Your task to perform on an android device: Open the map Image 0: 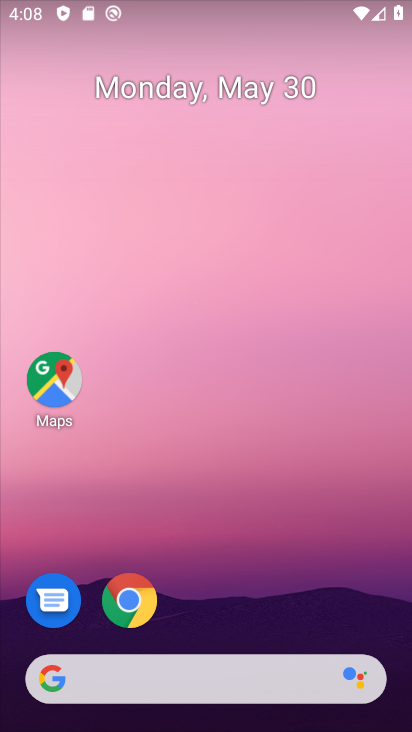
Step 0: click (48, 382)
Your task to perform on an android device: Open the map Image 1: 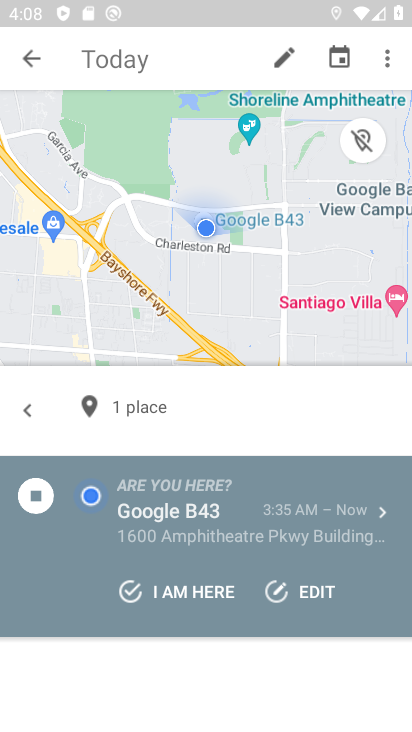
Step 1: task complete